Your task to perform on an android device: Open Google Maps and go to "Timeline" Image 0: 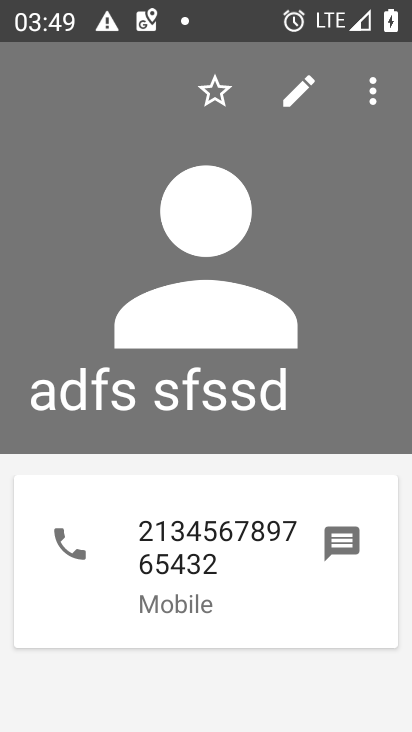
Step 0: press home button
Your task to perform on an android device: Open Google Maps and go to "Timeline" Image 1: 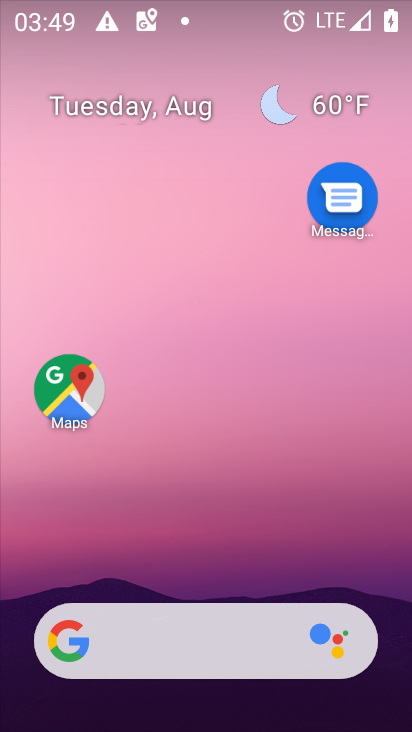
Step 1: click (52, 386)
Your task to perform on an android device: Open Google Maps and go to "Timeline" Image 2: 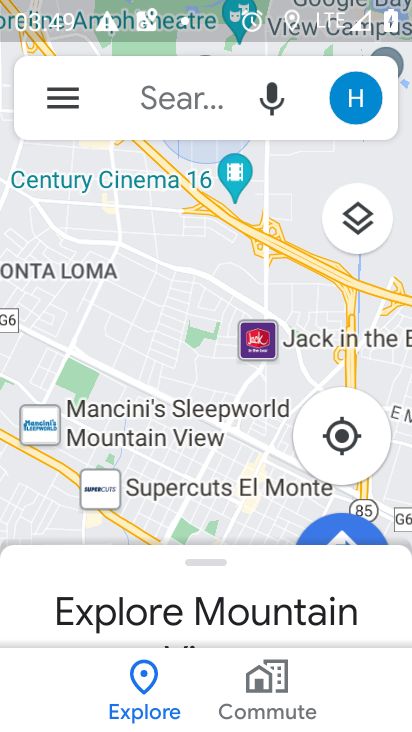
Step 2: click (36, 98)
Your task to perform on an android device: Open Google Maps and go to "Timeline" Image 3: 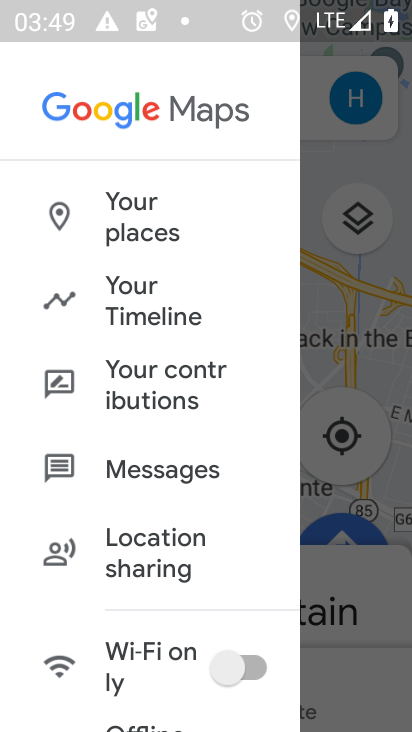
Step 3: click (108, 314)
Your task to perform on an android device: Open Google Maps and go to "Timeline" Image 4: 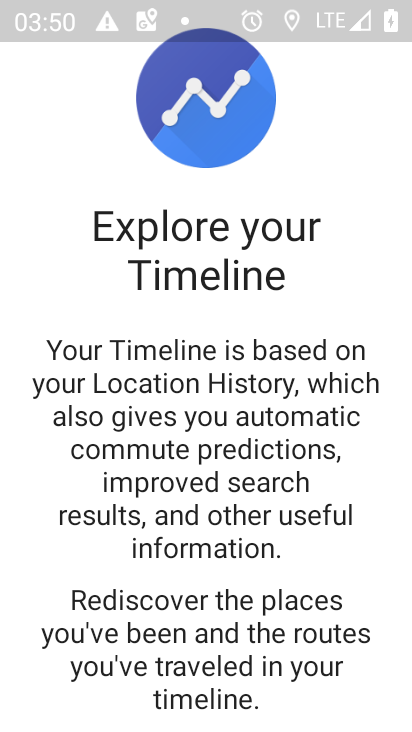
Step 4: drag from (232, 642) to (228, 249)
Your task to perform on an android device: Open Google Maps and go to "Timeline" Image 5: 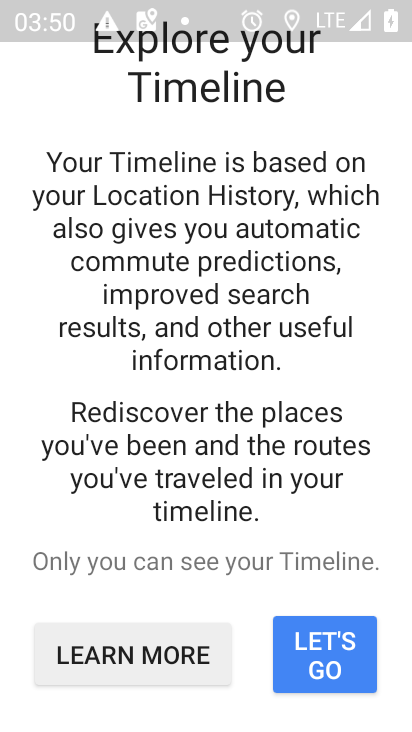
Step 5: click (319, 658)
Your task to perform on an android device: Open Google Maps and go to "Timeline" Image 6: 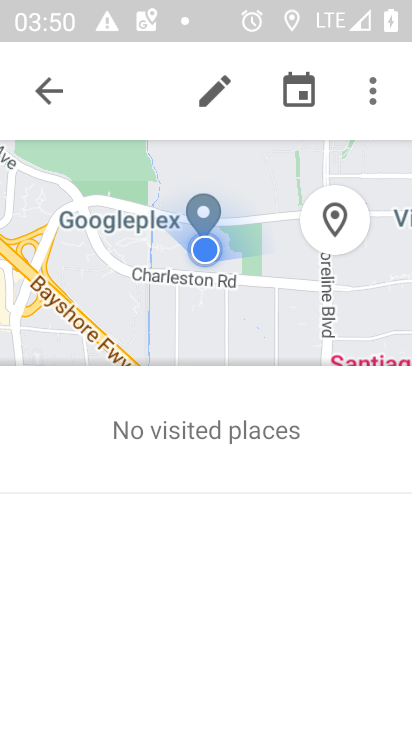
Step 6: task complete